Your task to perform on an android device: Go to calendar. Show me events next week Image 0: 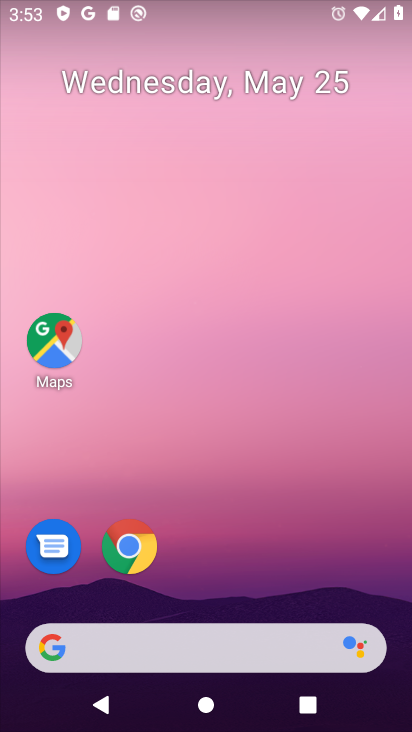
Step 0: click (245, 179)
Your task to perform on an android device: Go to calendar. Show me events next week Image 1: 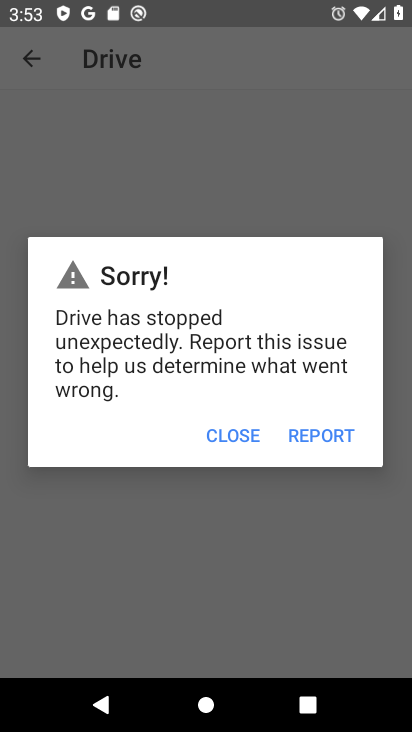
Step 1: press home button
Your task to perform on an android device: Go to calendar. Show me events next week Image 2: 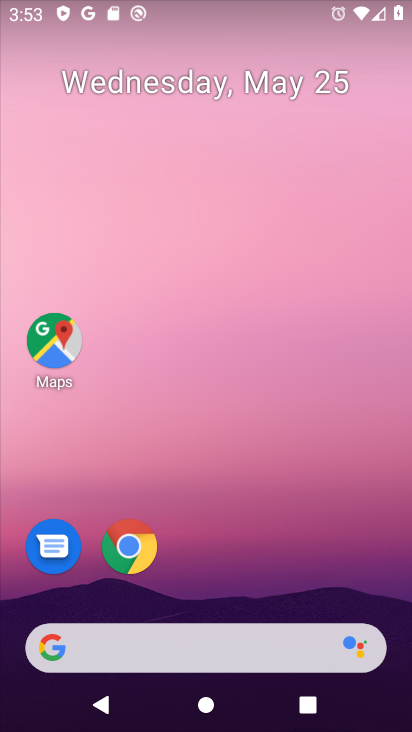
Step 2: drag from (273, 560) to (267, 35)
Your task to perform on an android device: Go to calendar. Show me events next week Image 3: 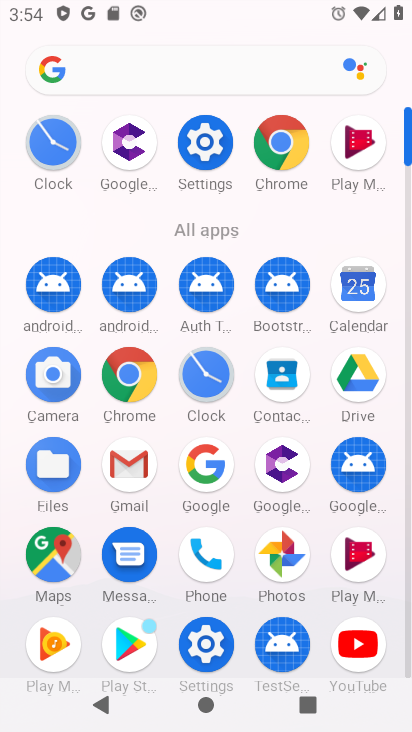
Step 3: click (367, 302)
Your task to perform on an android device: Go to calendar. Show me events next week Image 4: 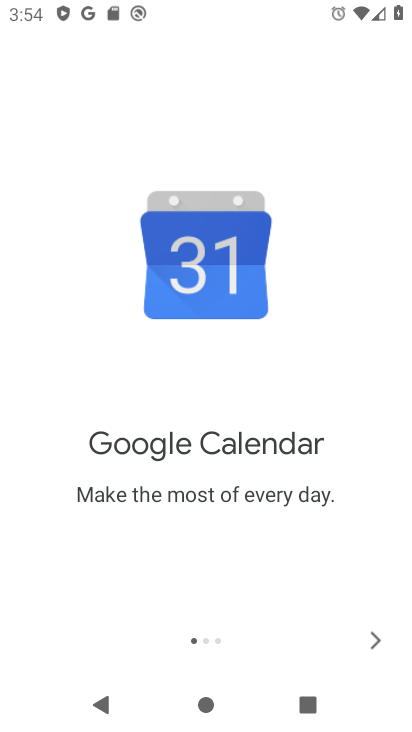
Step 4: click (376, 632)
Your task to perform on an android device: Go to calendar. Show me events next week Image 5: 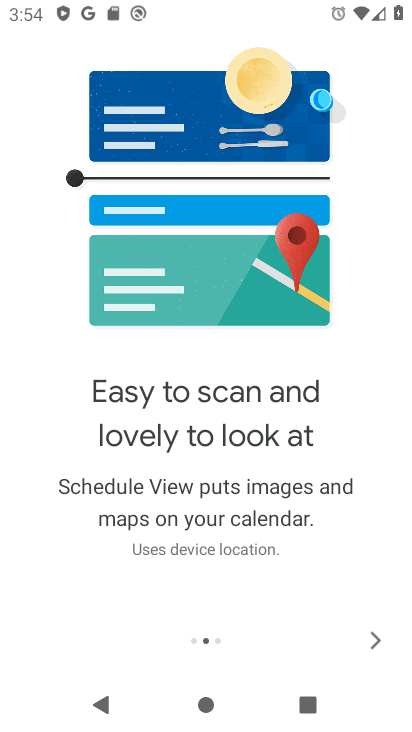
Step 5: click (375, 632)
Your task to perform on an android device: Go to calendar. Show me events next week Image 6: 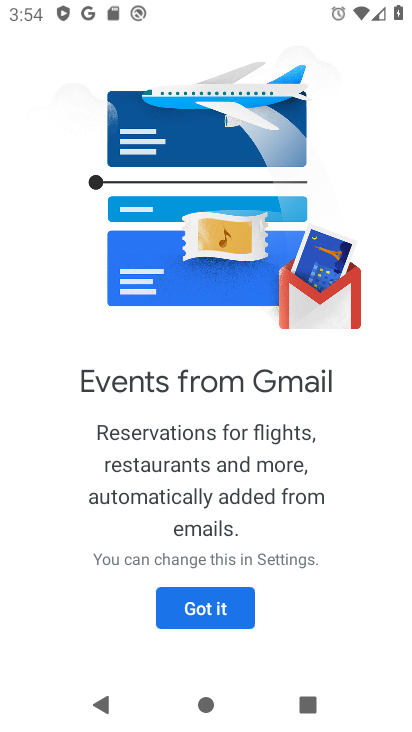
Step 6: click (222, 603)
Your task to perform on an android device: Go to calendar. Show me events next week Image 7: 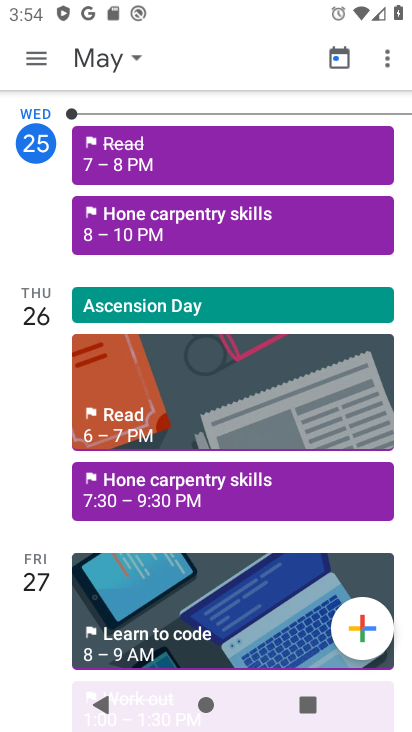
Step 7: click (126, 78)
Your task to perform on an android device: Go to calendar. Show me events next week Image 8: 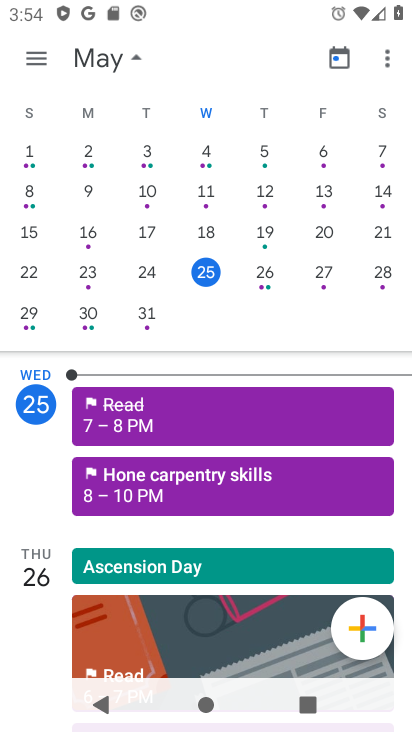
Step 8: click (25, 312)
Your task to perform on an android device: Go to calendar. Show me events next week Image 9: 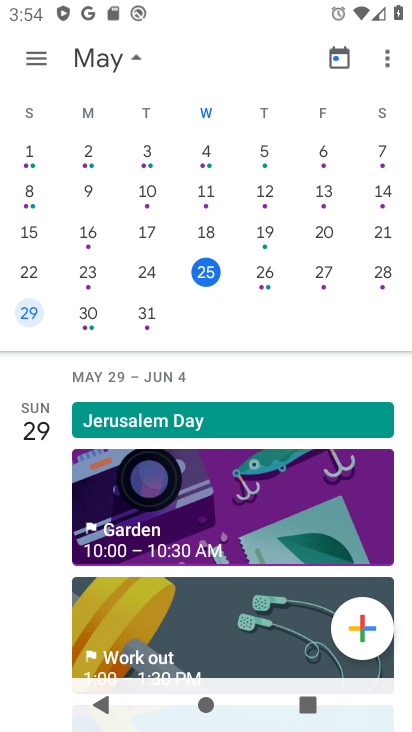
Step 9: click (91, 316)
Your task to perform on an android device: Go to calendar. Show me events next week Image 10: 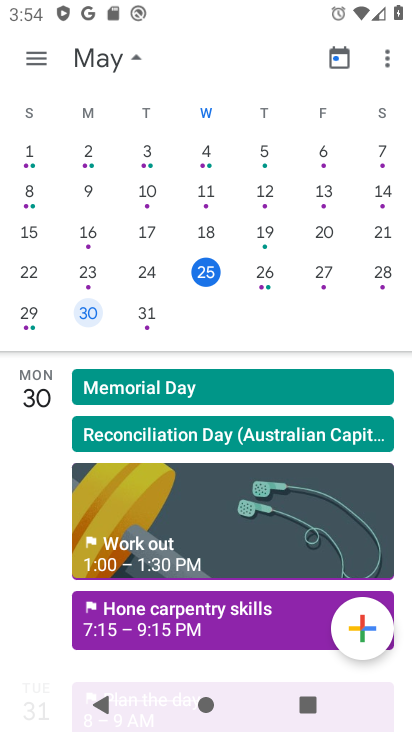
Step 10: click (141, 319)
Your task to perform on an android device: Go to calendar. Show me events next week Image 11: 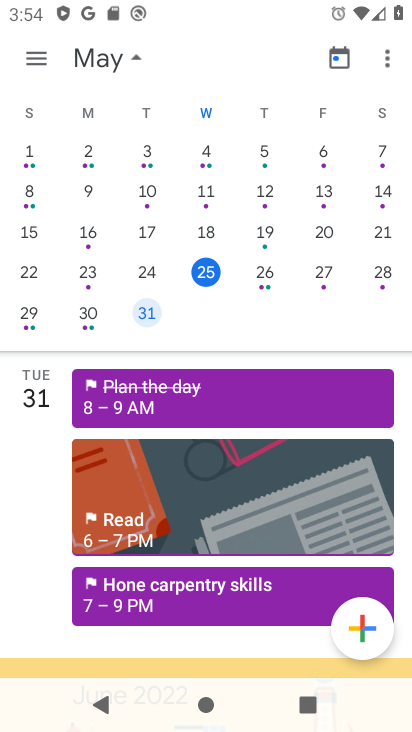
Step 11: task complete